Your task to perform on an android device: What is the recent news? Image 0: 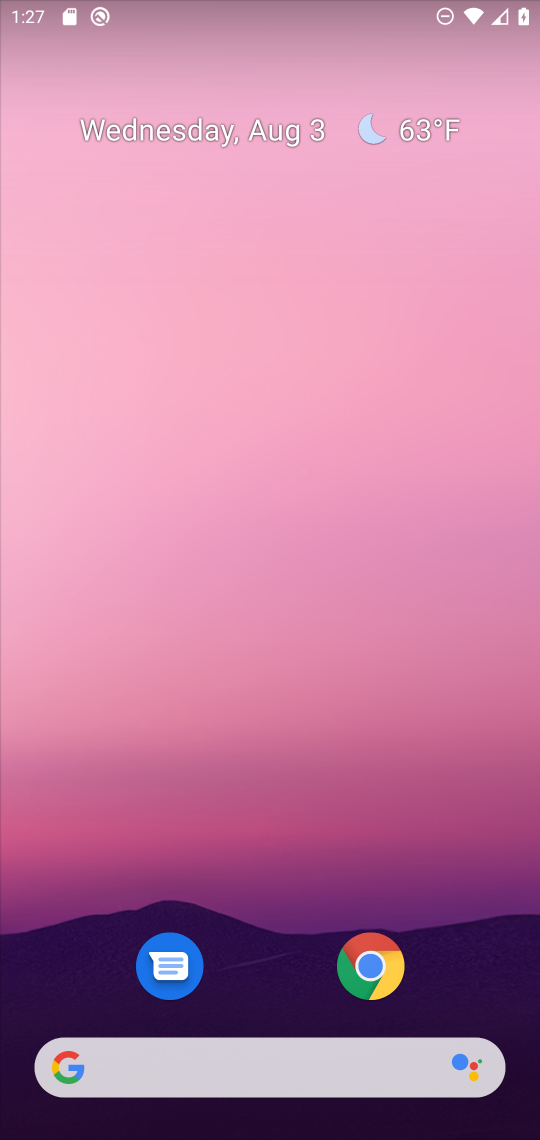
Step 0: press back button
Your task to perform on an android device: What is the recent news? Image 1: 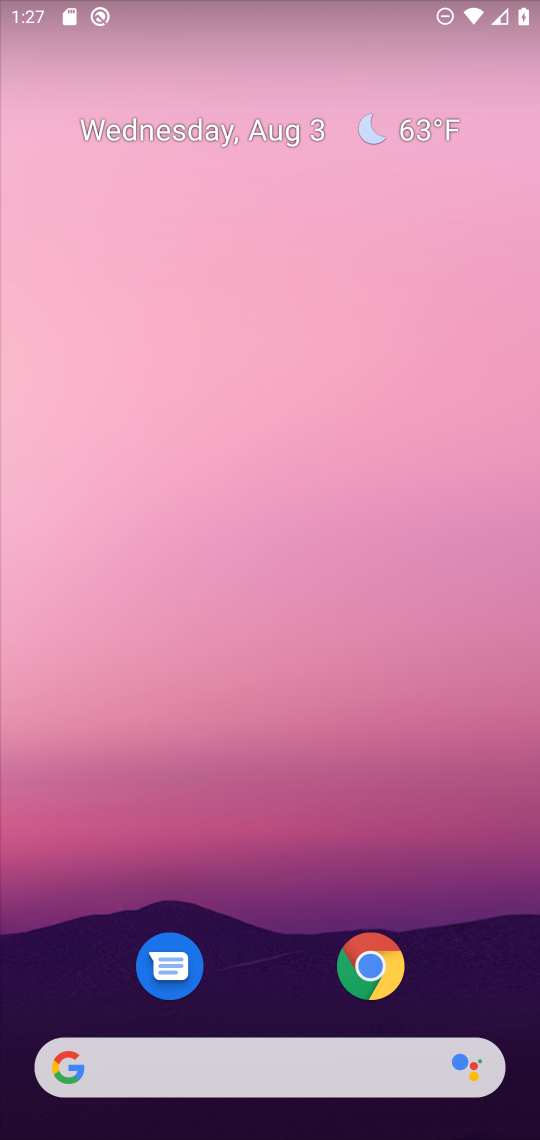
Step 1: press back button
Your task to perform on an android device: What is the recent news? Image 2: 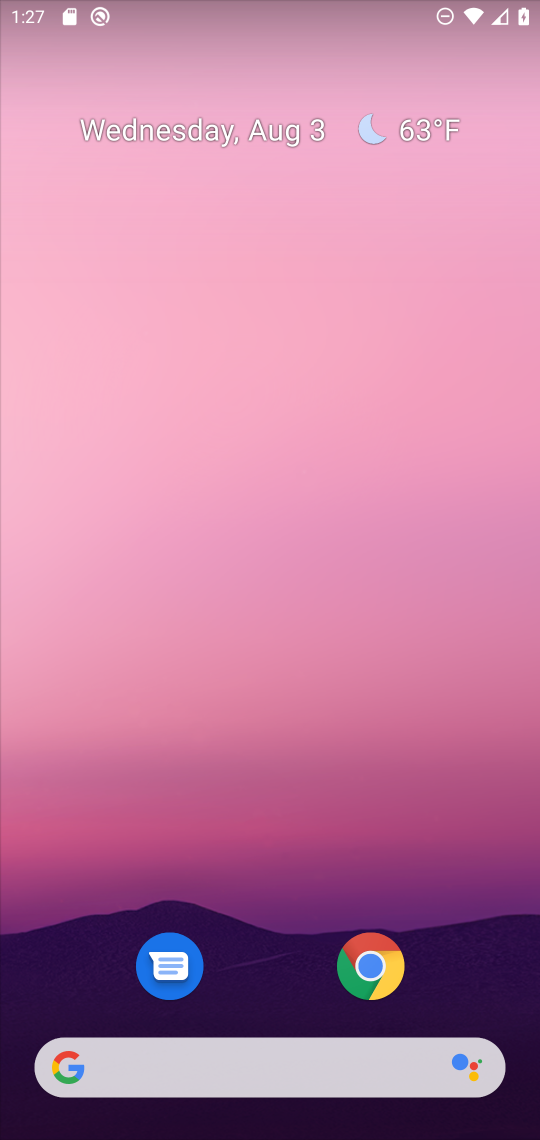
Step 2: drag from (261, 969) to (237, 247)
Your task to perform on an android device: What is the recent news? Image 3: 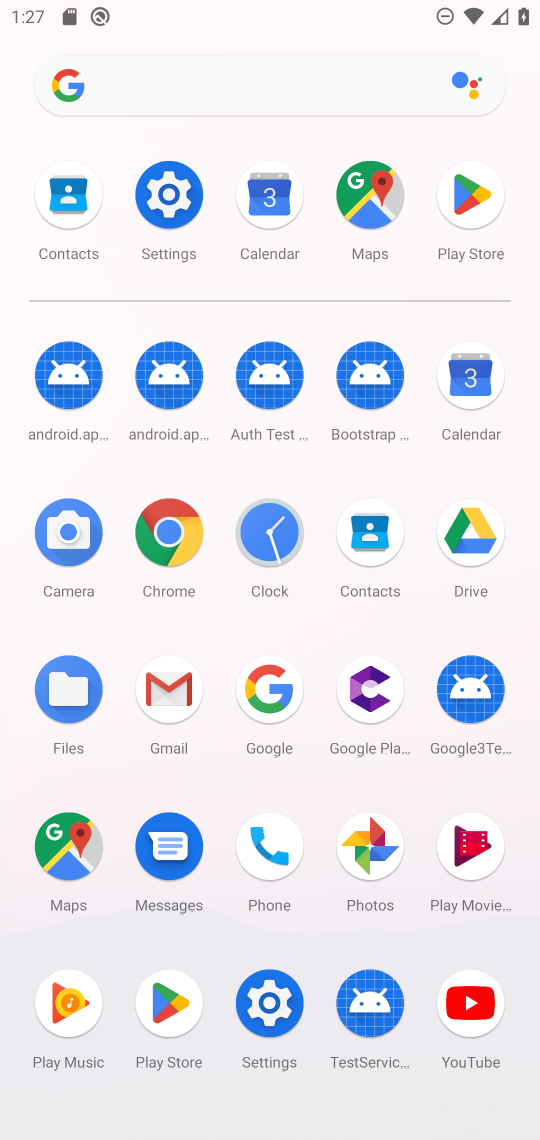
Step 3: click (281, 705)
Your task to perform on an android device: What is the recent news? Image 4: 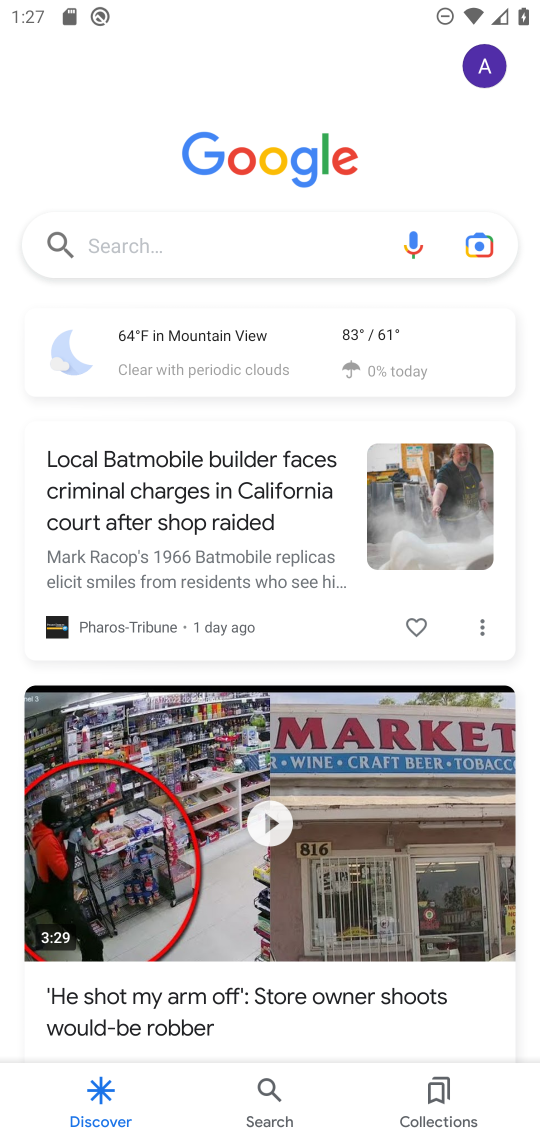
Step 4: click (255, 233)
Your task to perform on an android device: What is the recent news? Image 5: 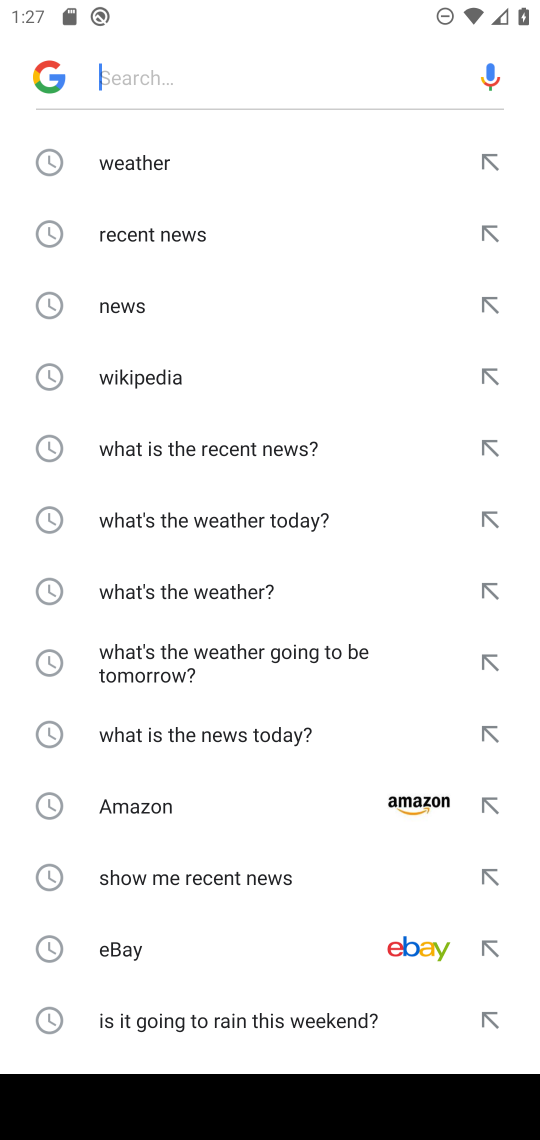
Step 5: click (153, 313)
Your task to perform on an android device: What is the recent news? Image 6: 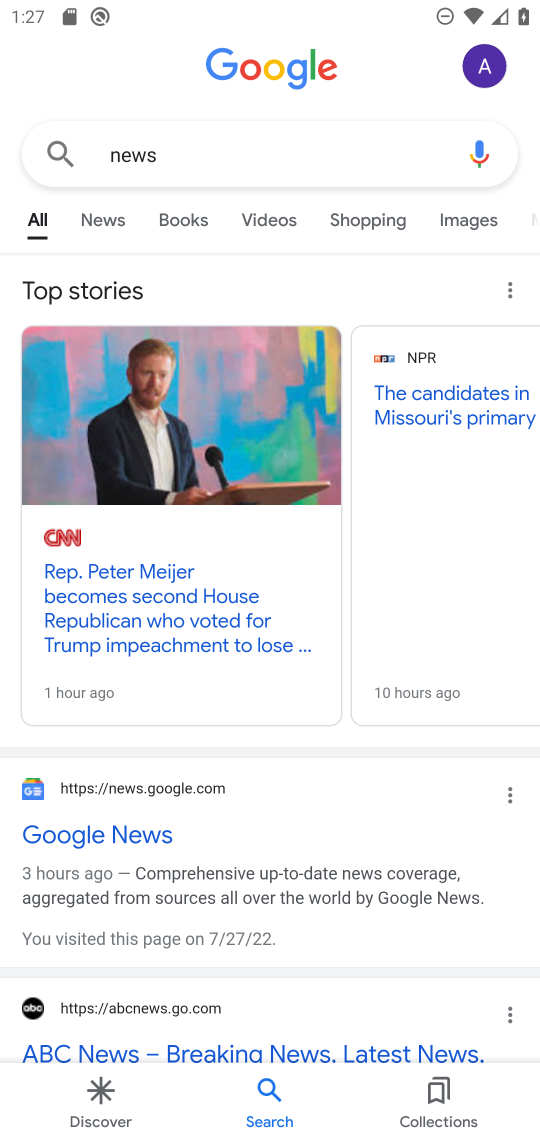
Step 6: click (119, 225)
Your task to perform on an android device: What is the recent news? Image 7: 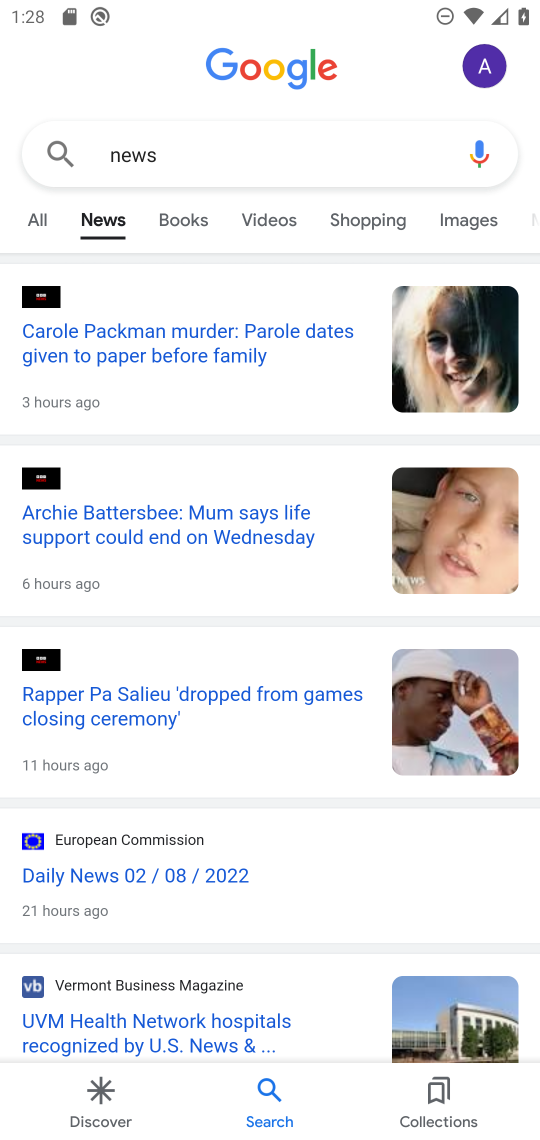
Step 7: task complete